Your task to perform on an android device: Go to wifi settings Image 0: 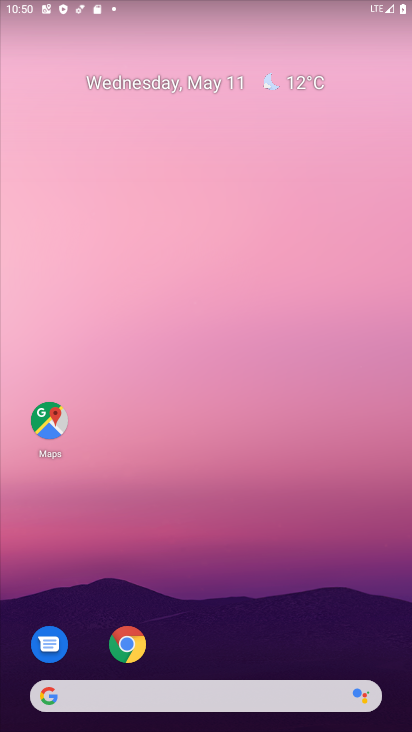
Step 0: drag from (236, 615) to (228, 245)
Your task to perform on an android device: Go to wifi settings Image 1: 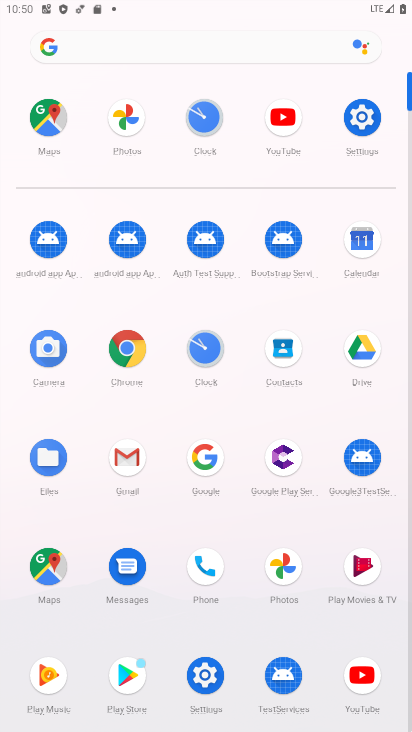
Step 1: click (366, 135)
Your task to perform on an android device: Go to wifi settings Image 2: 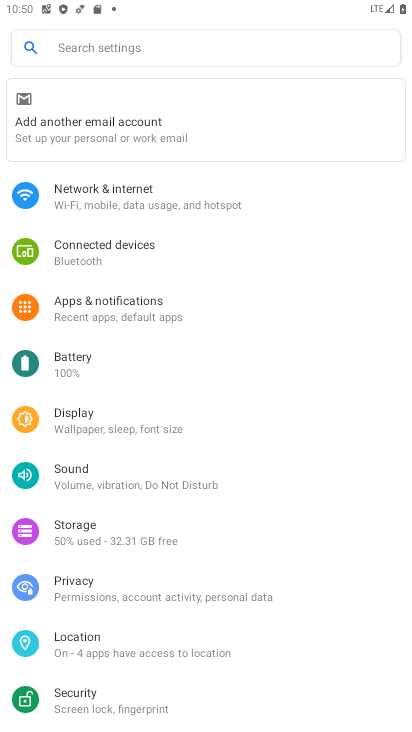
Step 2: click (154, 194)
Your task to perform on an android device: Go to wifi settings Image 3: 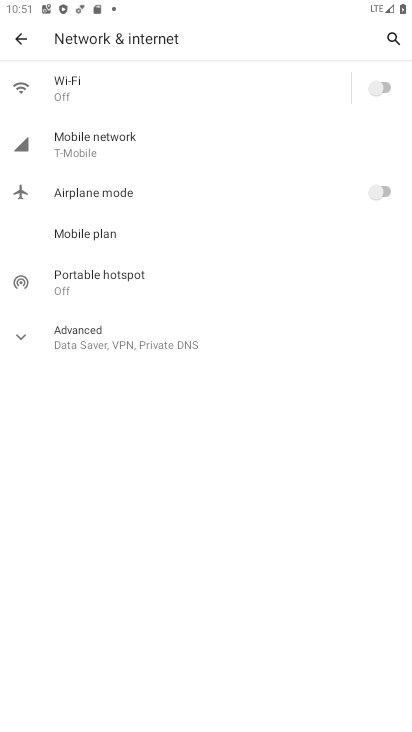
Step 3: click (151, 90)
Your task to perform on an android device: Go to wifi settings Image 4: 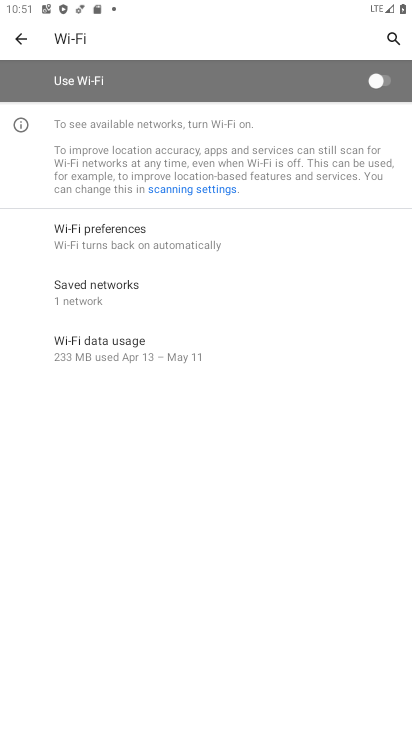
Step 4: click (392, 84)
Your task to perform on an android device: Go to wifi settings Image 5: 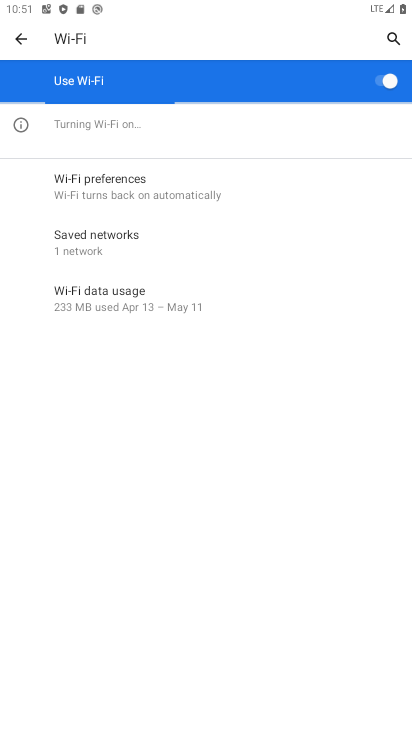
Step 5: task complete